Your task to perform on an android device: Open Android settings Image 0: 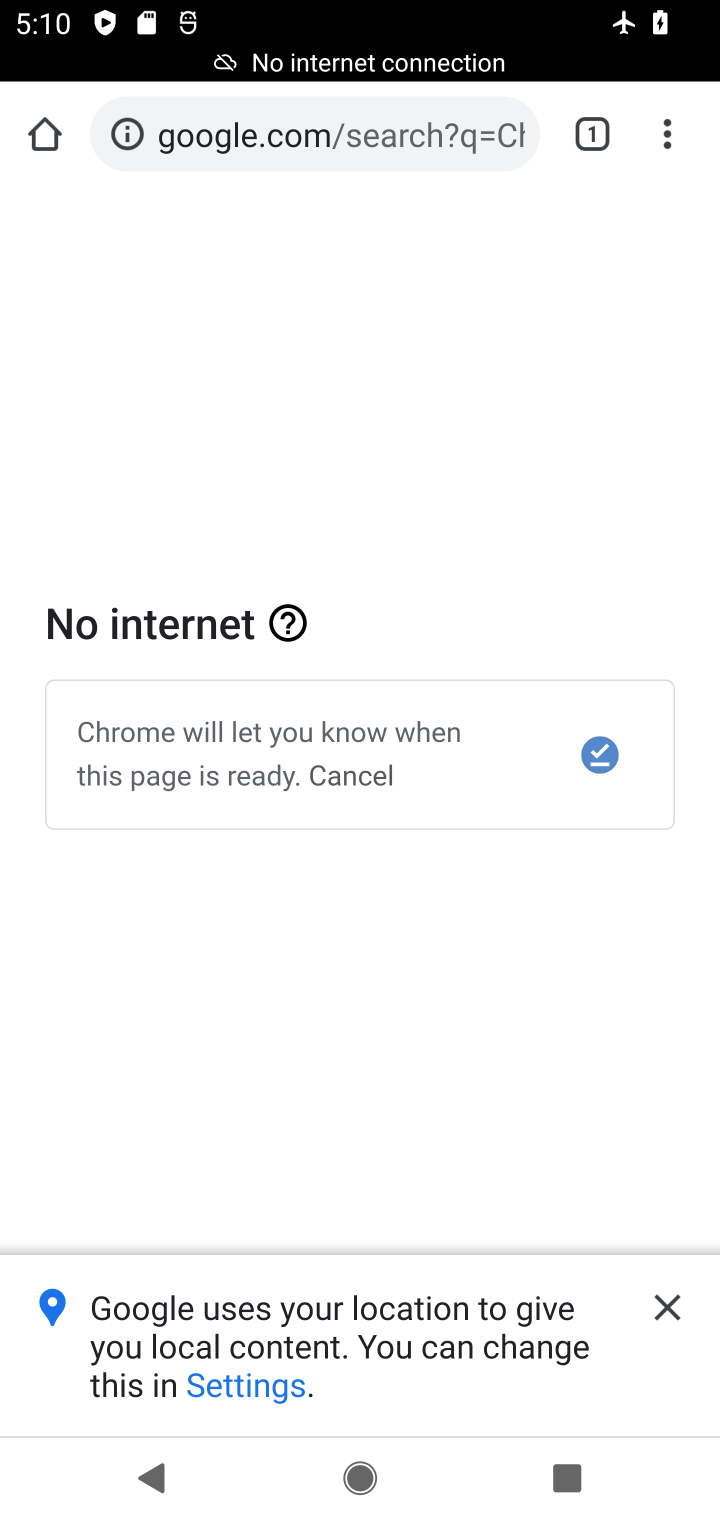
Step 0: press home button
Your task to perform on an android device: Open Android settings Image 1: 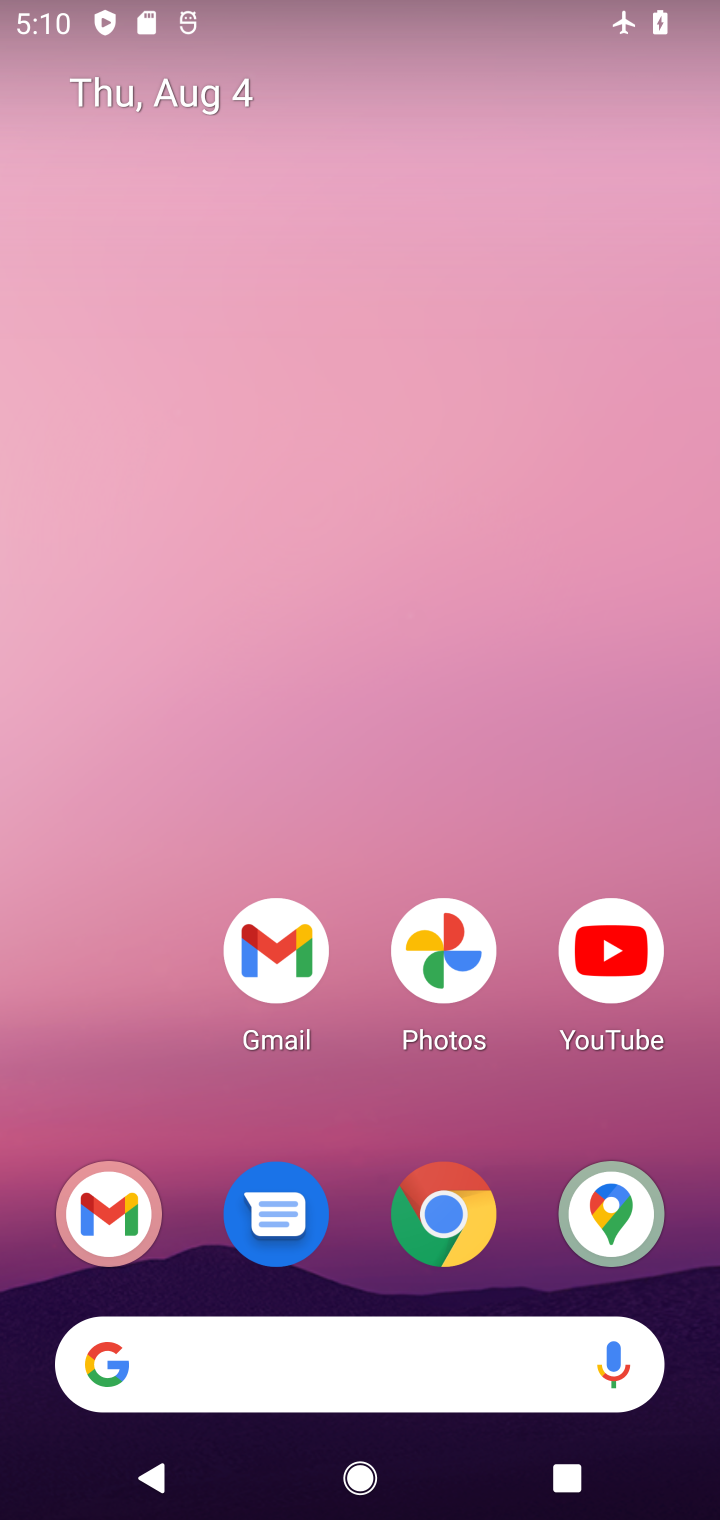
Step 1: drag from (528, 1160) to (516, 306)
Your task to perform on an android device: Open Android settings Image 2: 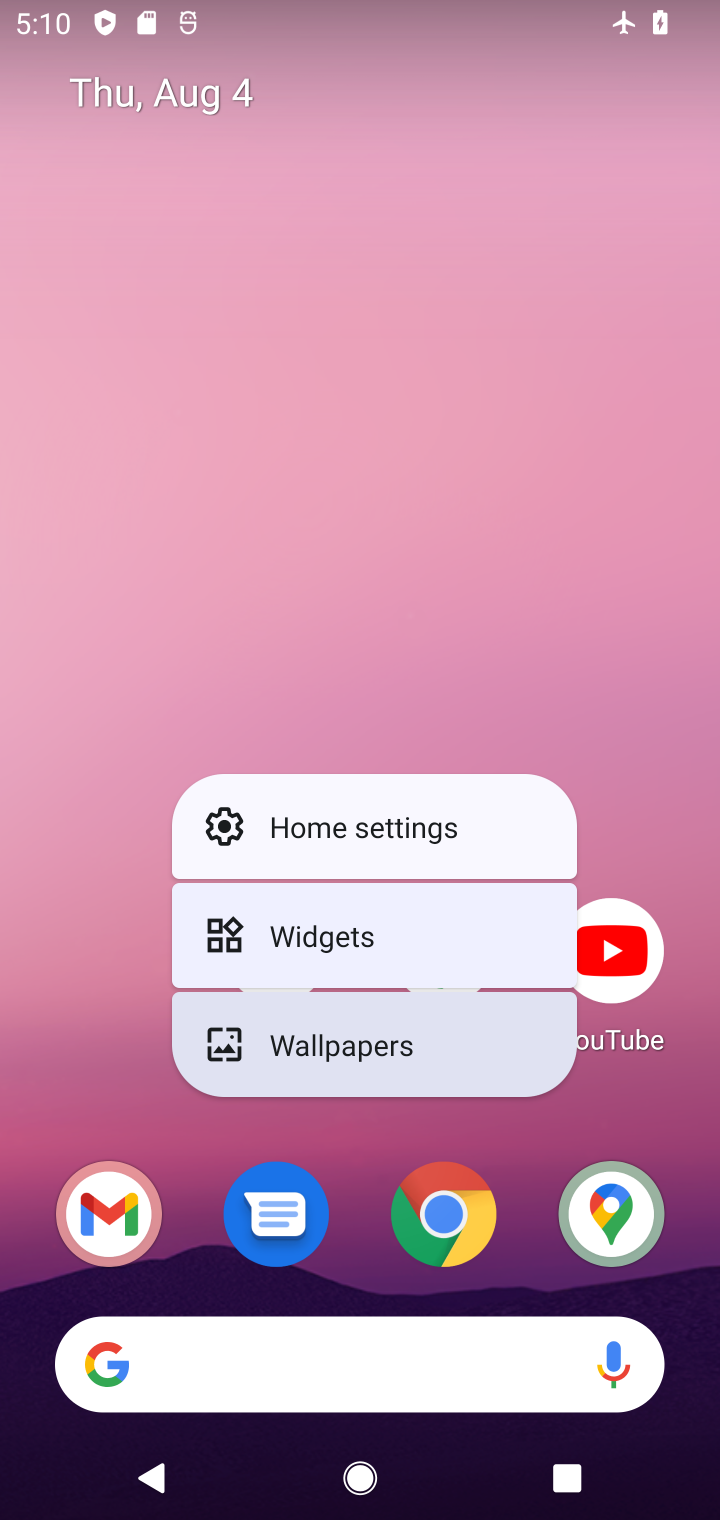
Step 2: drag from (691, 1310) to (592, 315)
Your task to perform on an android device: Open Android settings Image 3: 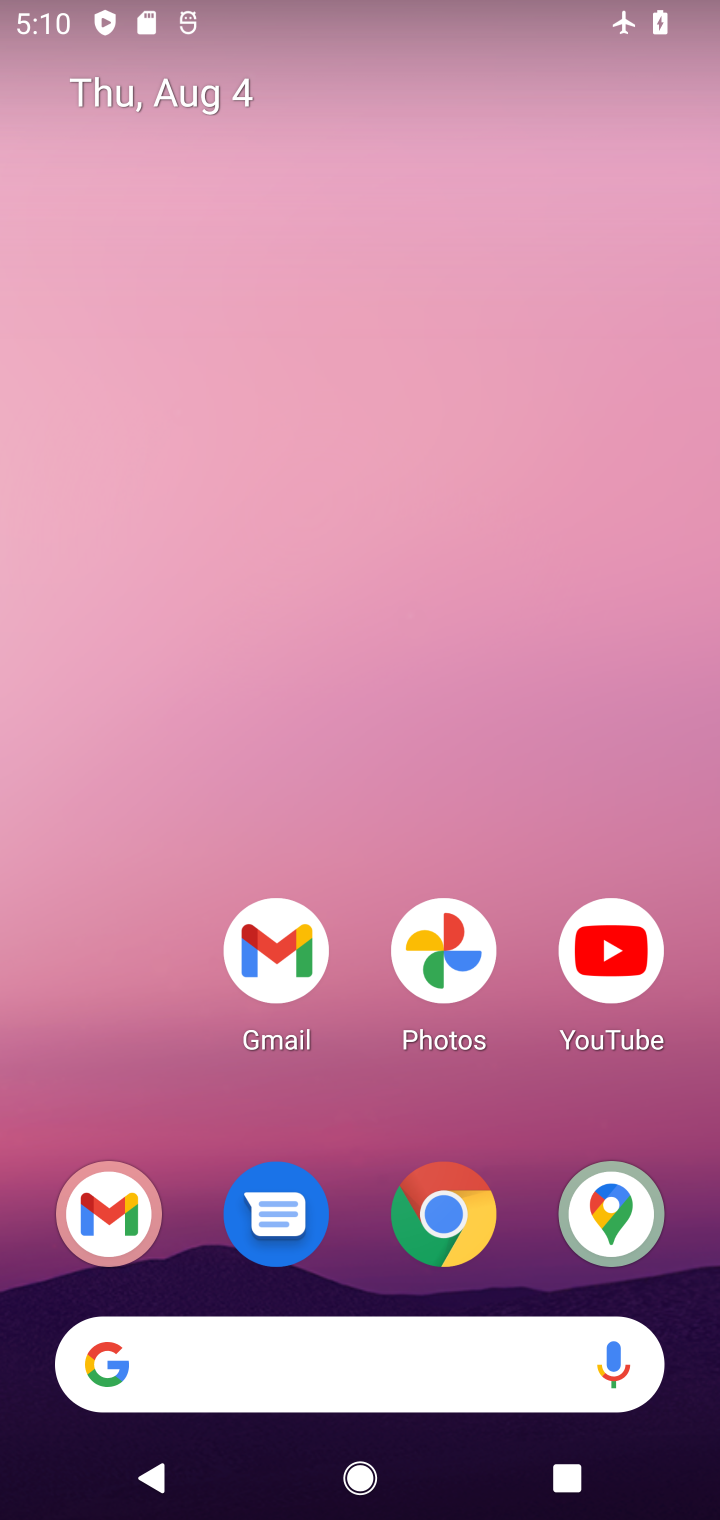
Step 3: drag from (532, 1147) to (473, 254)
Your task to perform on an android device: Open Android settings Image 4: 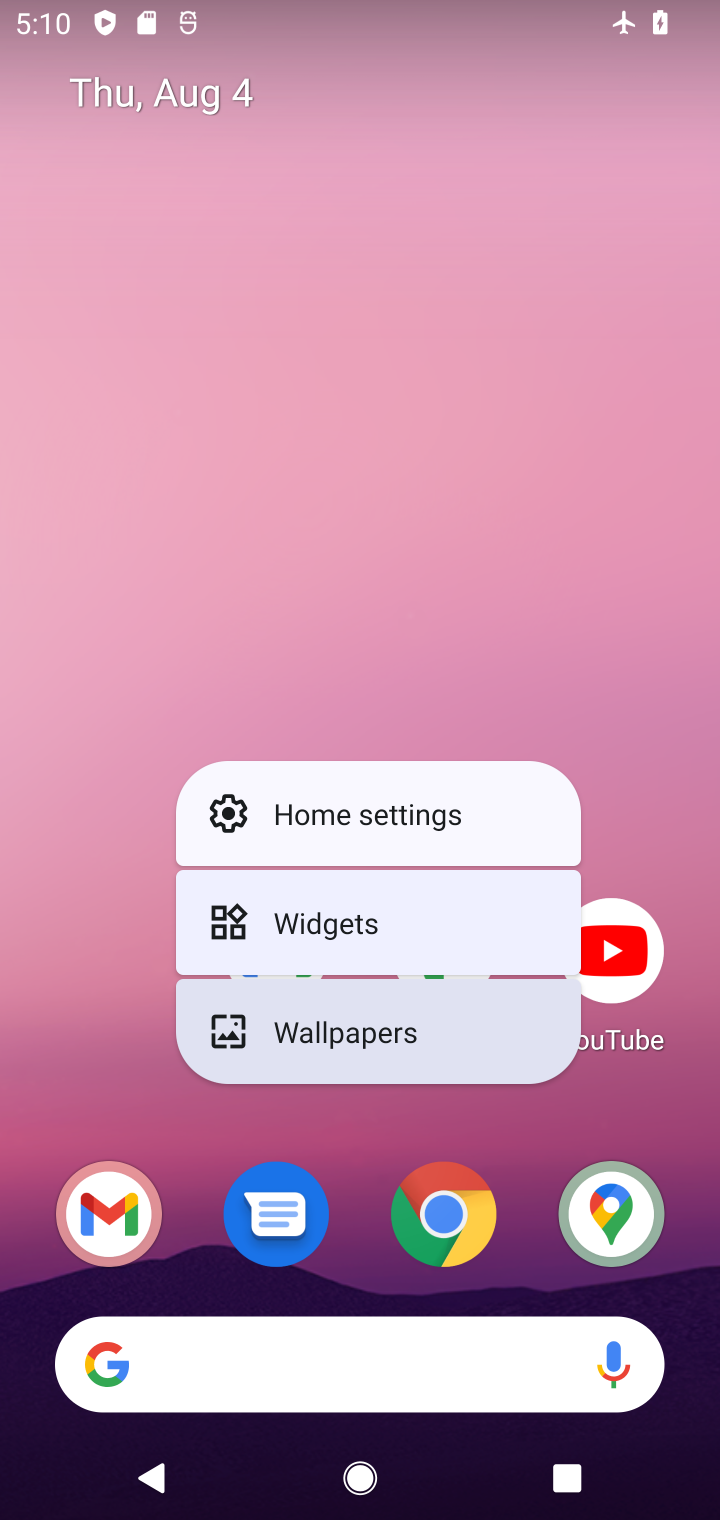
Step 4: drag from (547, 1273) to (499, 137)
Your task to perform on an android device: Open Android settings Image 5: 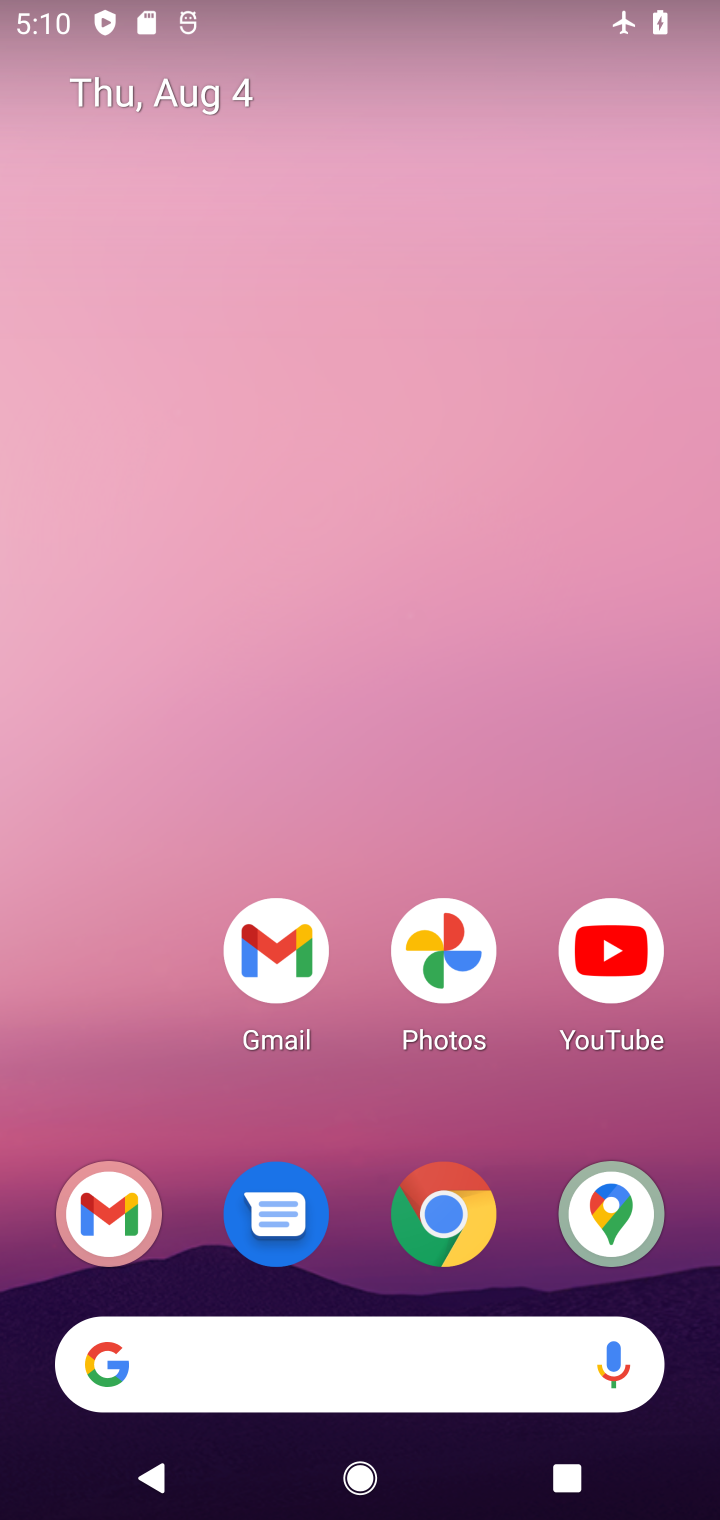
Step 5: drag from (513, 1138) to (490, 271)
Your task to perform on an android device: Open Android settings Image 6: 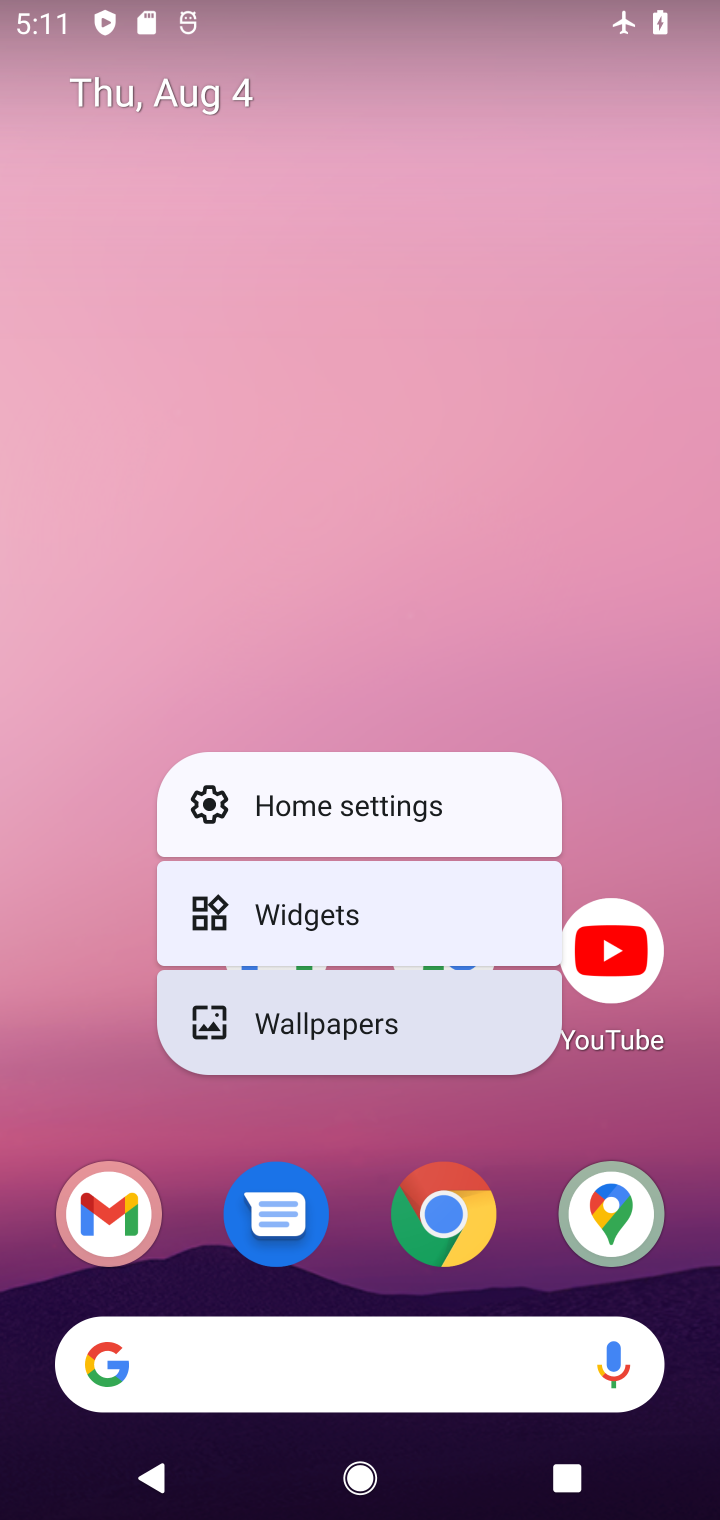
Step 6: drag from (701, 1169) to (499, 179)
Your task to perform on an android device: Open Android settings Image 7: 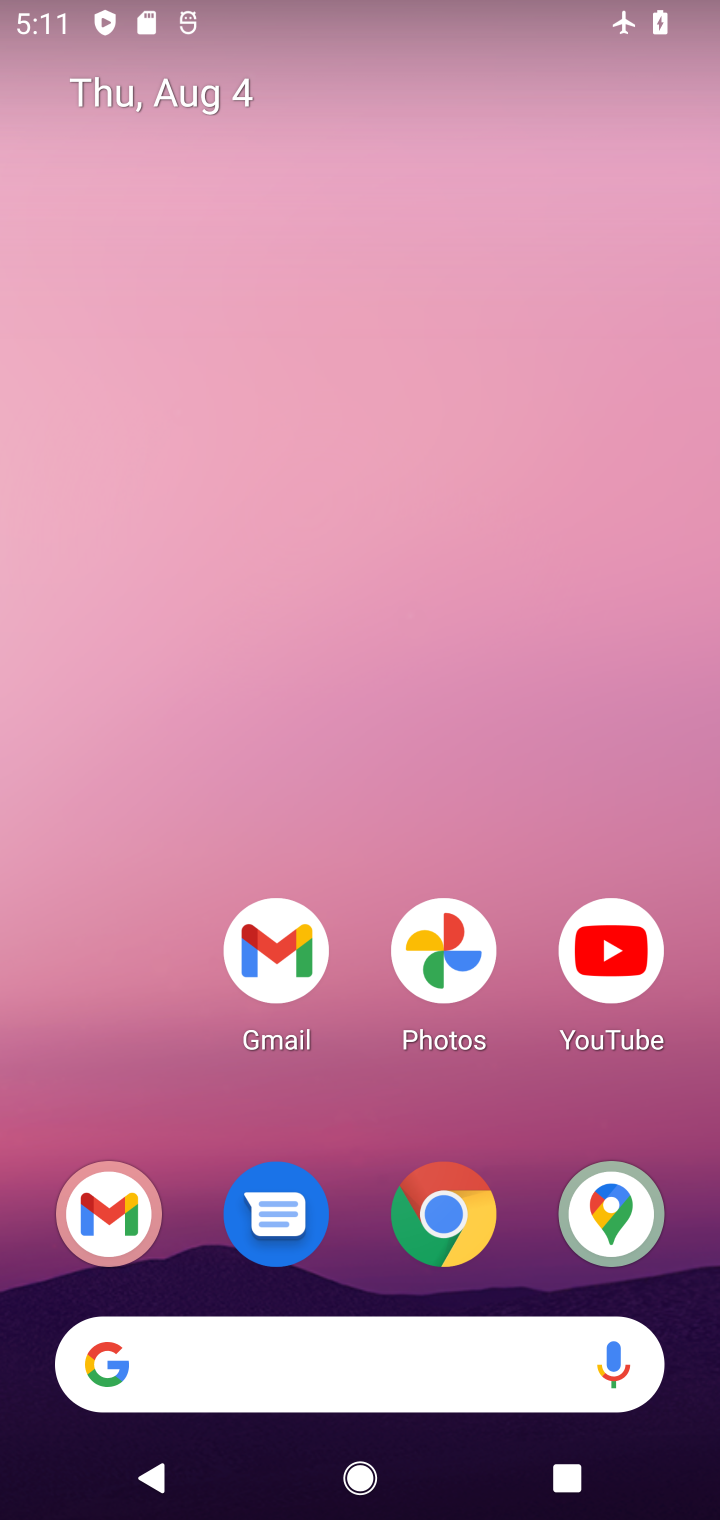
Step 7: drag from (364, 1269) to (273, 319)
Your task to perform on an android device: Open Android settings Image 8: 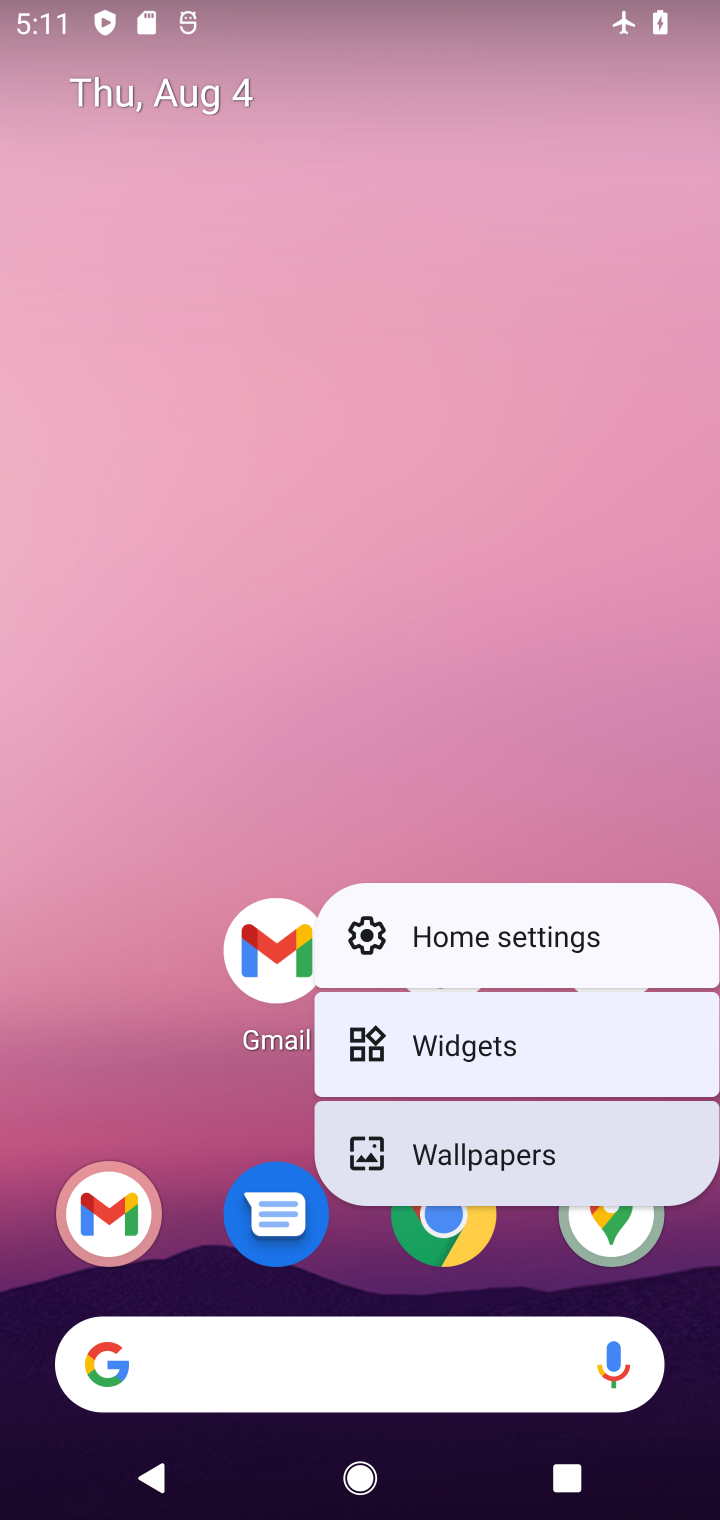
Step 8: drag from (210, 1296) to (212, 330)
Your task to perform on an android device: Open Android settings Image 9: 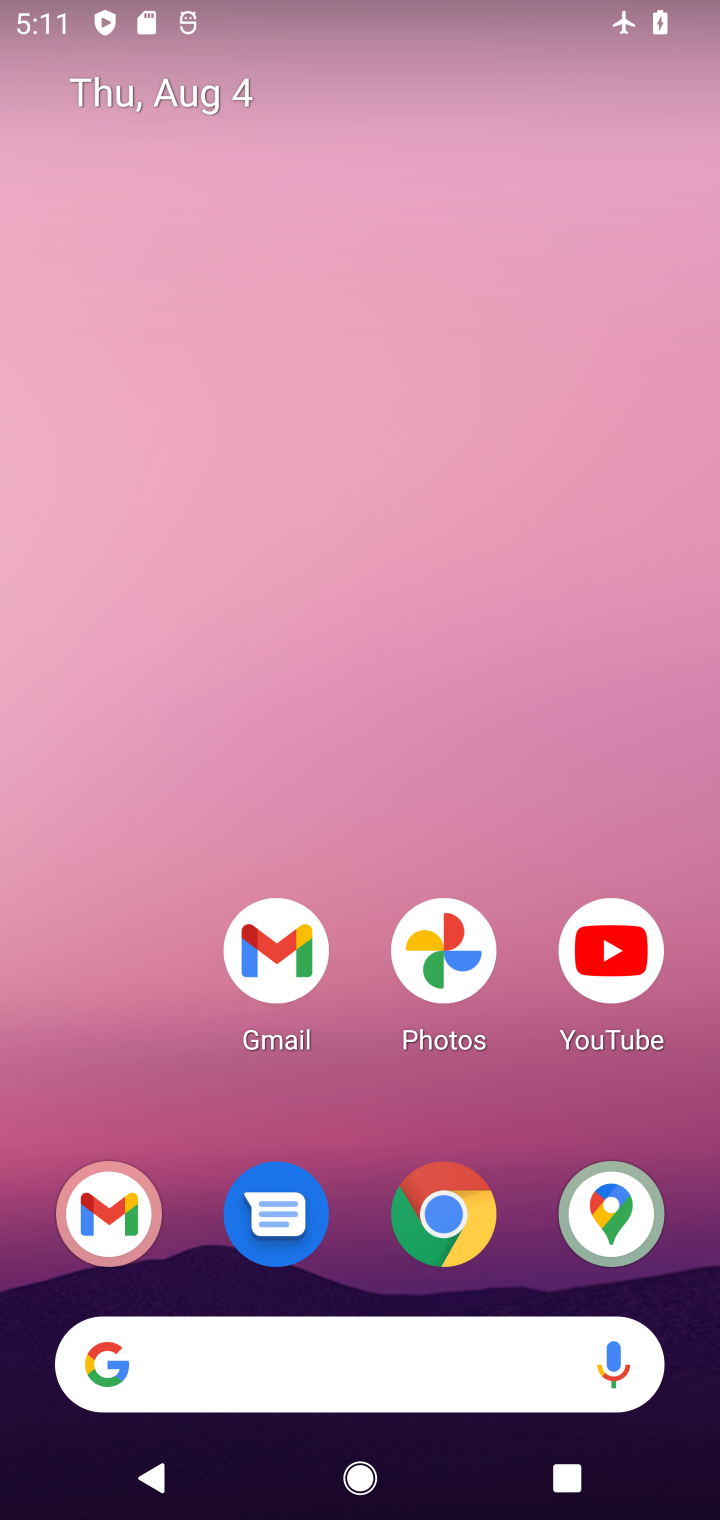
Step 9: drag from (363, 1295) to (343, 194)
Your task to perform on an android device: Open Android settings Image 10: 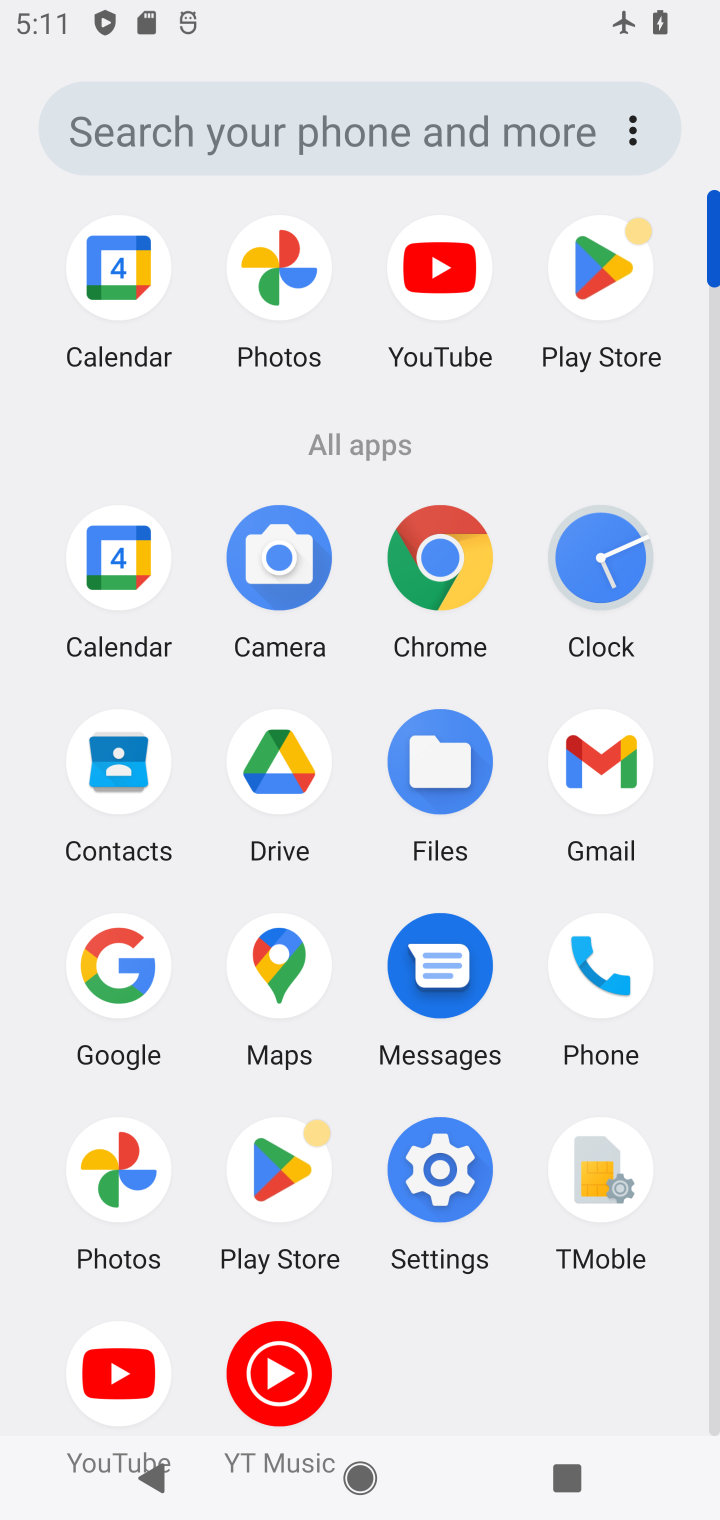
Step 10: click (462, 1208)
Your task to perform on an android device: Open Android settings Image 11: 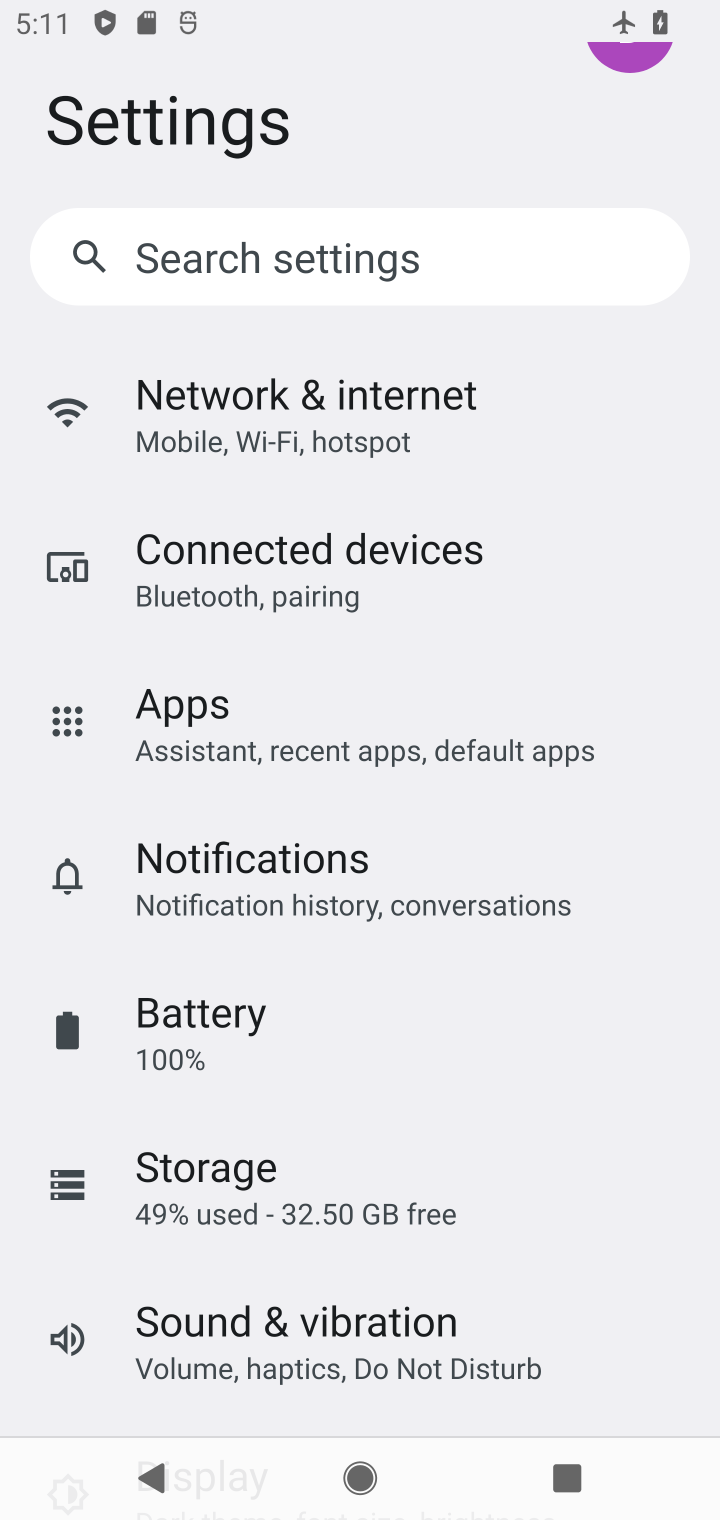
Step 11: task complete